Your task to perform on an android device: Go to Android settings Image 0: 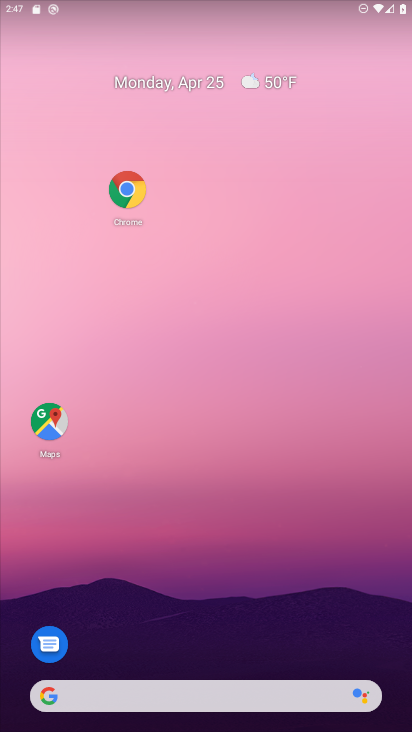
Step 0: drag from (155, 659) to (202, 148)
Your task to perform on an android device: Go to Android settings Image 1: 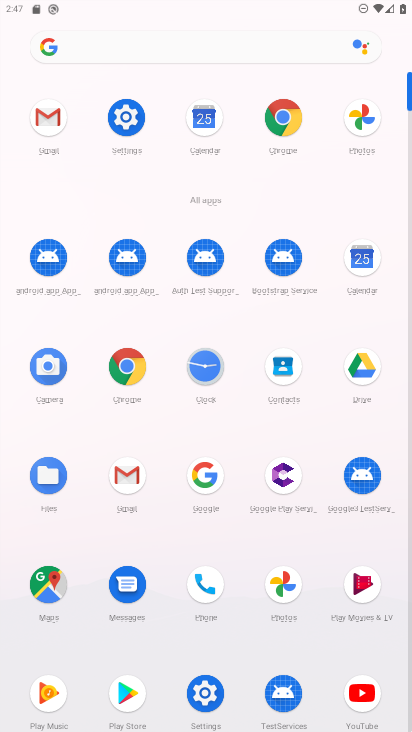
Step 1: click (209, 692)
Your task to perform on an android device: Go to Android settings Image 2: 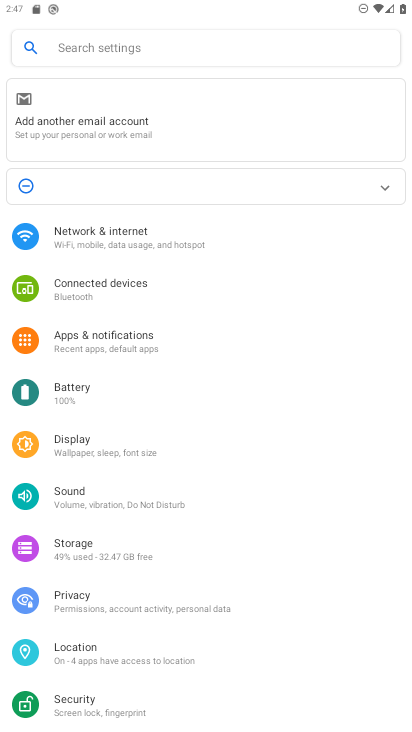
Step 2: drag from (155, 648) to (244, 165)
Your task to perform on an android device: Go to Android settings Image 3: 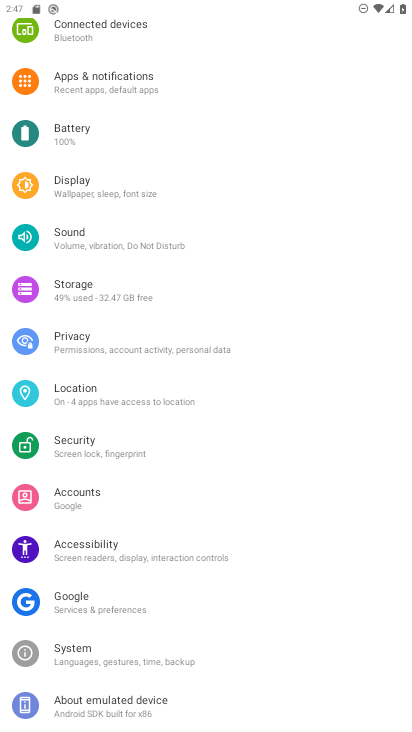
Step 3: drag from (158, 615) to (205, 115)
Your task to perform on an android device: Go to Android settings Image 4: 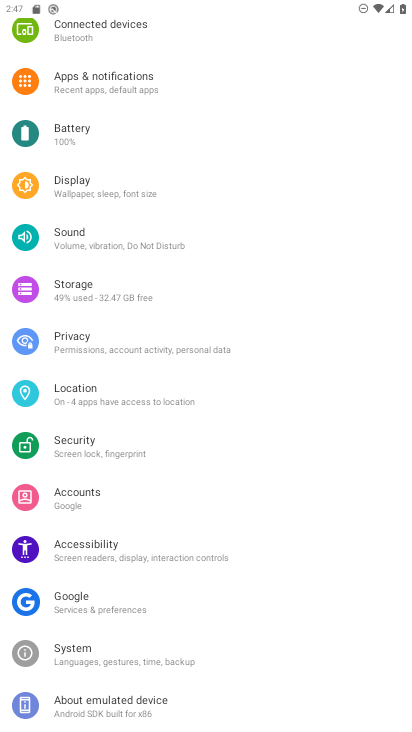
Step 4: click (107, 710)
Your task to perform on an android device: Go to Android settings Image 5: 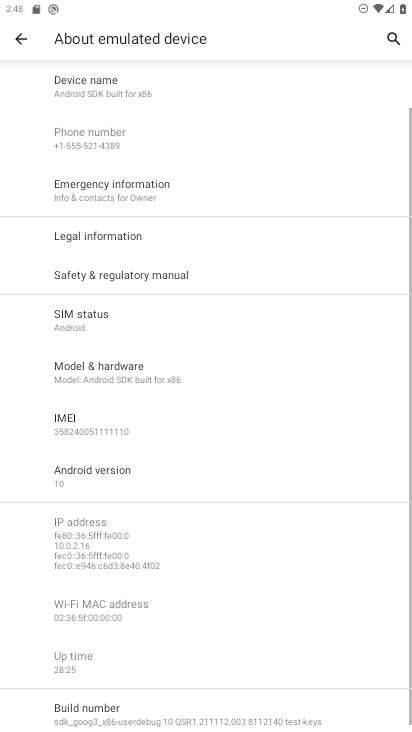
Step 5: drag from (171, 626) to (231, 225)
Your task to perform on an android device: Go to Android settings Image 6: 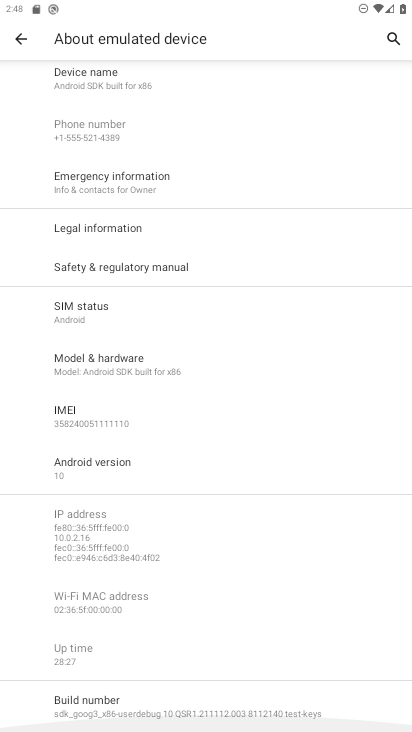
Step 6: drag from (166, 516) to (188, 285)
Your task to perform on an android device: Go to Android settings Image 7: 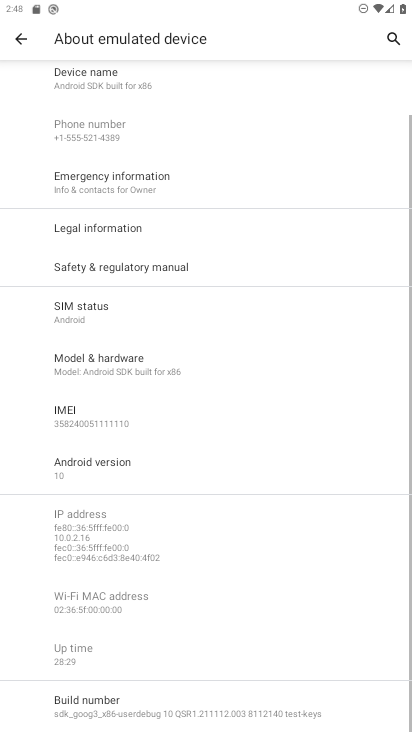
Step 7: click (109, 473)
Your task to perform on an android device: Go to Android settings Image 8: 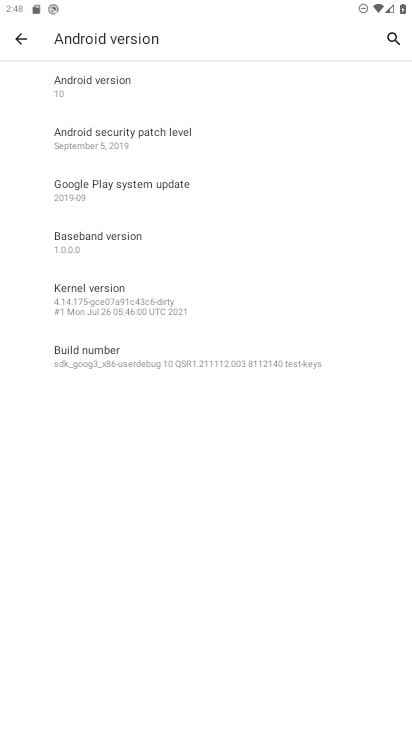
Step 8: task complete